Your task to perform on an android device: Go to wifi settings Image 0: 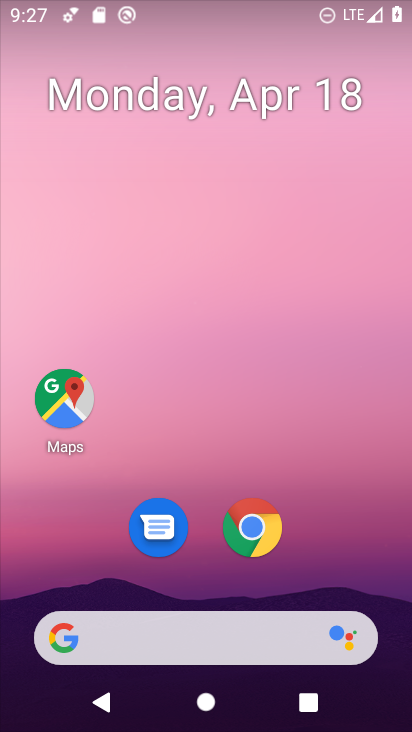
Step 0: drag from (287, 338) to (224, 47)
Your task to perform on an android device: Go to wifi settings Image 1: 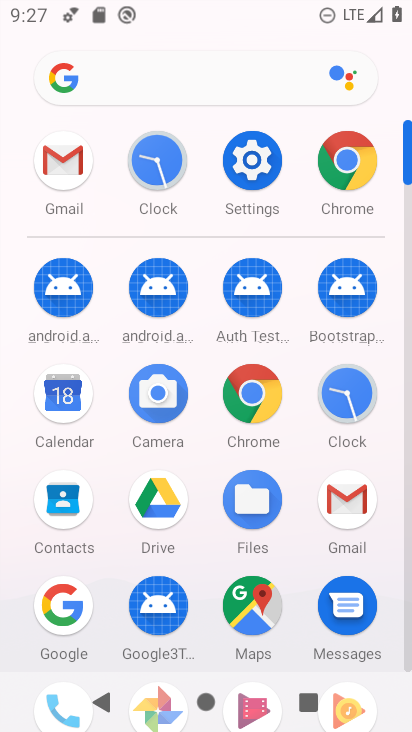
Step 1: drag from (8, 538) to (24, 240)
Your task to perform on an android device: Go to wifi settings Image 2: 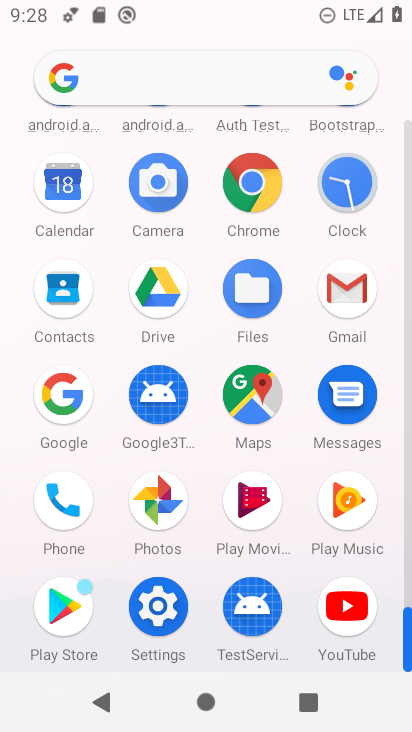
Step 2: click (160, 602)
Your task to perform on an android device: Go to wifi settings Image 3: 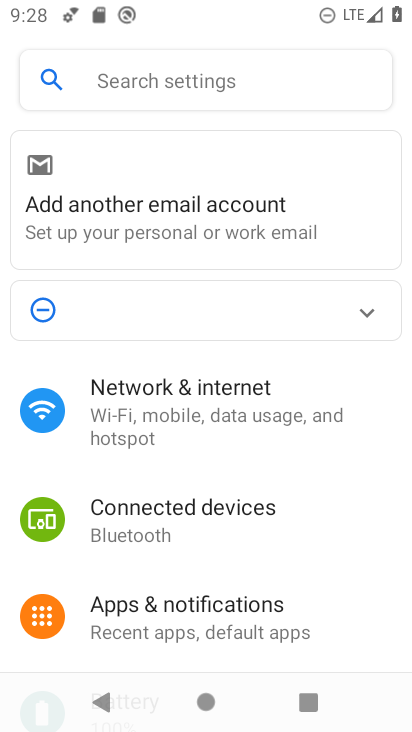
Step 3: click (242, 412)
Your task to perform on an android device: Go to wifi settings Image 4: 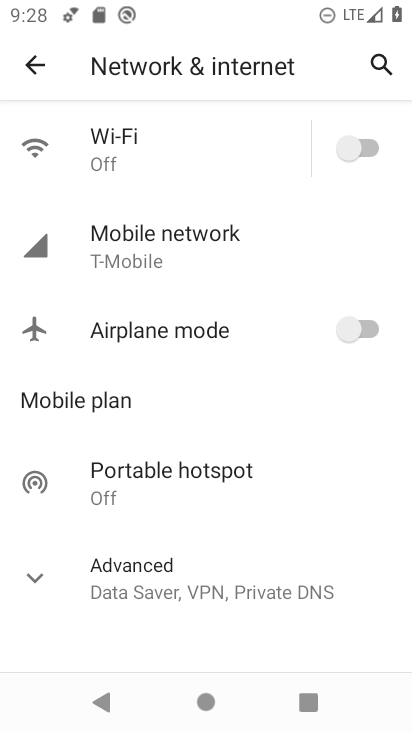
Step 4: click (230, 146)
Your task to perform on an android device: Go to wifi settings Image 5: 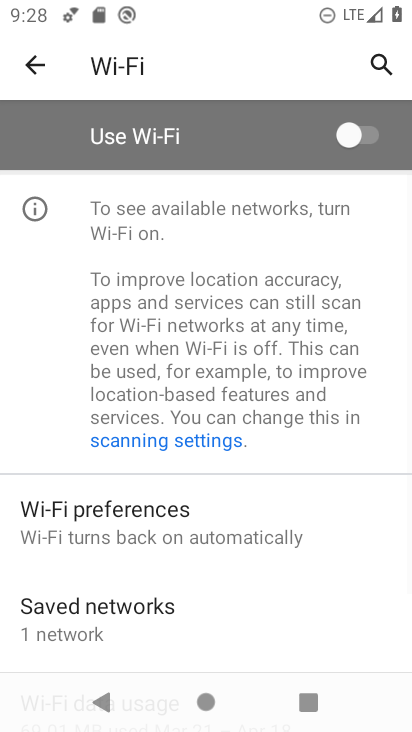
Step 5: task complete